Your task to perform on an android device: Go to Wikipedia Image 0: 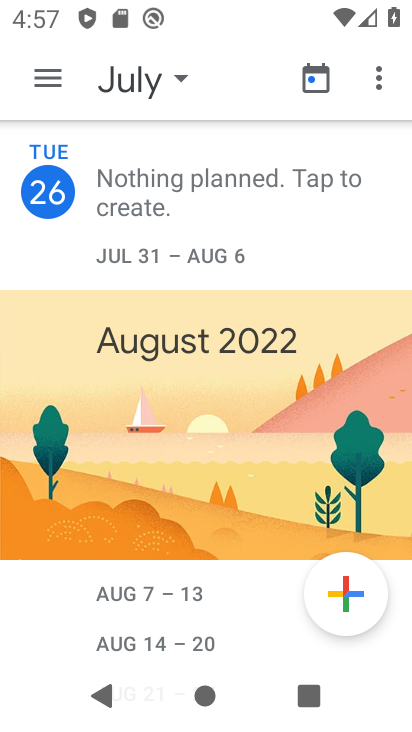
Step 0: press back button
Your task to perform on an android device: Go to Wikipedia Image 1: 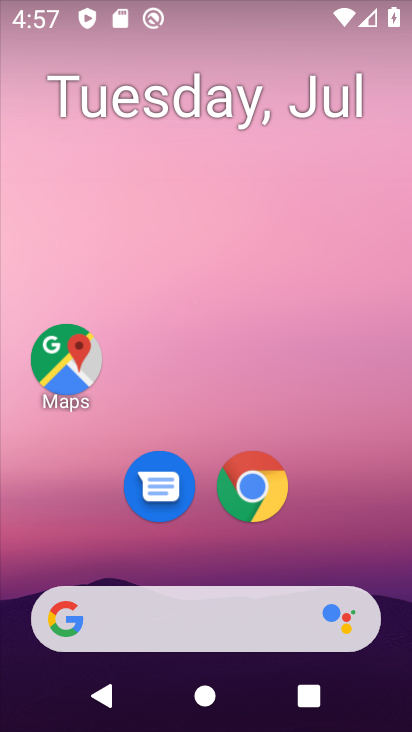
Step 1: click (243, 478)
Your task to perform on an android device: Go to Wikipedia Image 2: 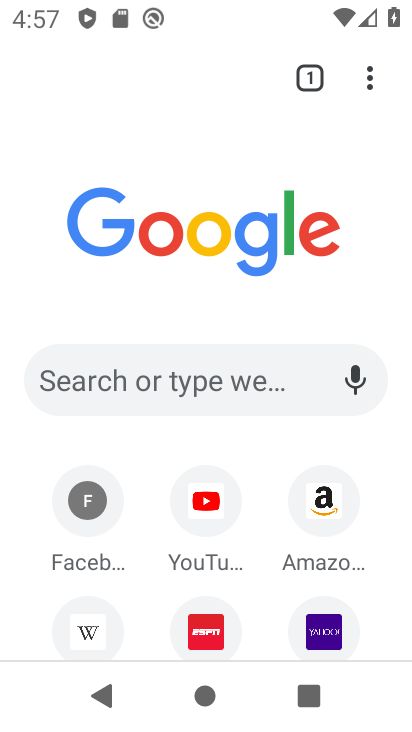
Step 2: click (91, 628)
Your task to perform on an android device: Go to Wikipedia Image 3: 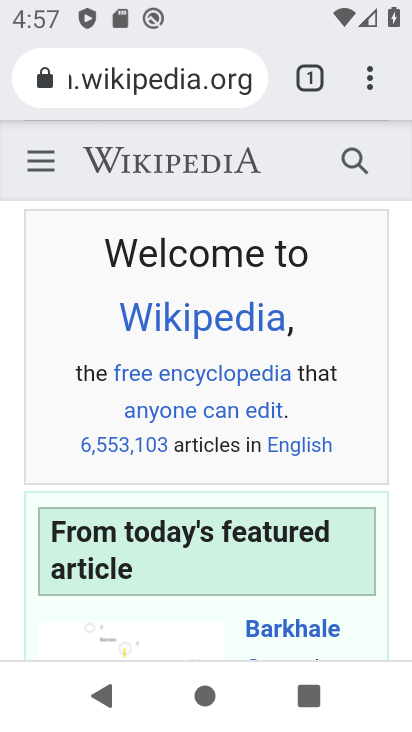
Step 3: task complete